Your task to perform on an android device: Go to eBay Image 0: 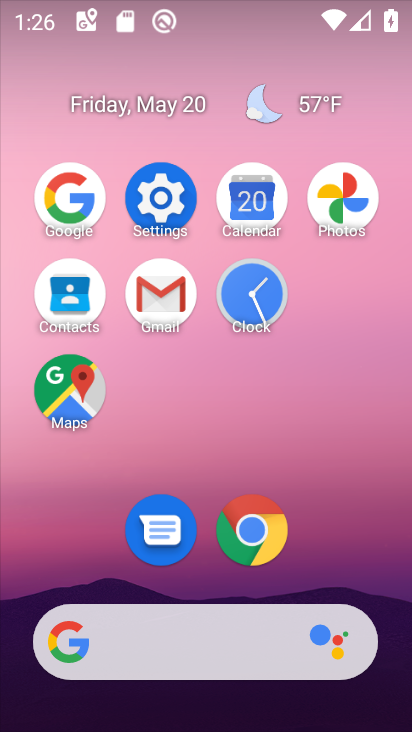
Step 0: click (250, 532)
Your task to perform on an android device: Go to eBay Image 1: 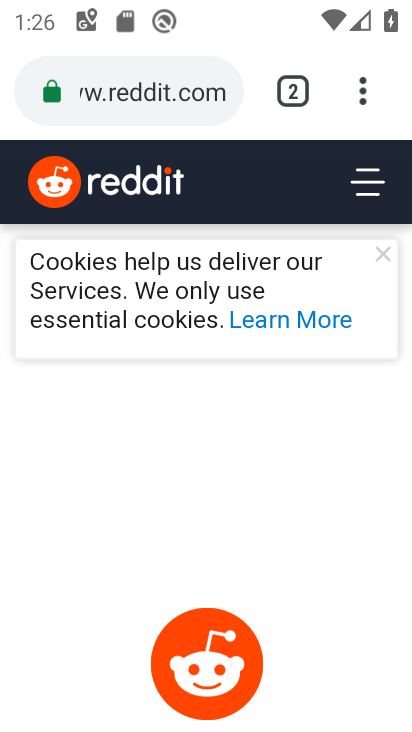
Step 1: click (286, 92)
Your task to perform on an android device: Go to eBay Image 2: 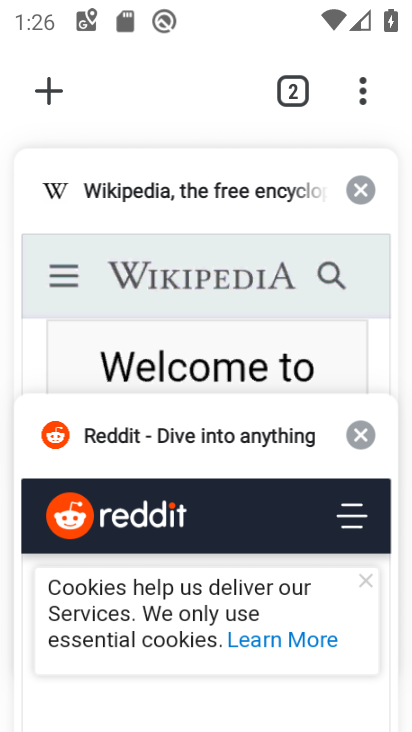
Step 2: click (45, 110)
Your task to perform on an android device: Go to eBay Image 3: 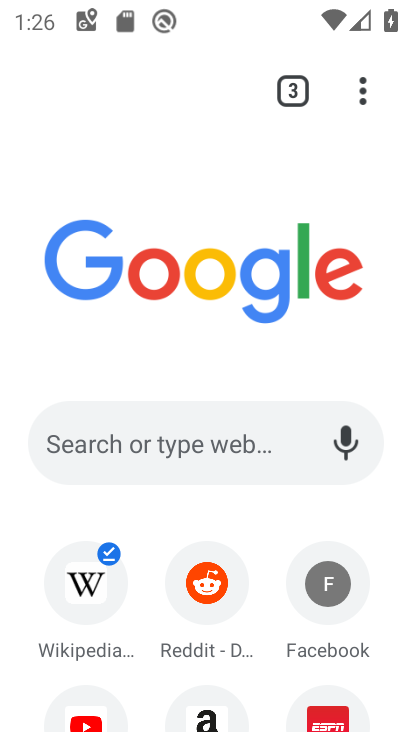
Step 3: click (154, 421)
Your task to perform on an android device: Go to eBay Image 4: 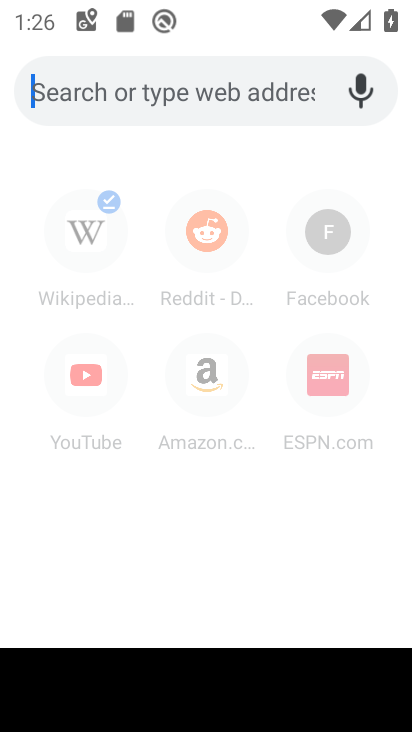
Step 4: type "ebay"
Your task to perform on an android device: Go to eBay Image 5: 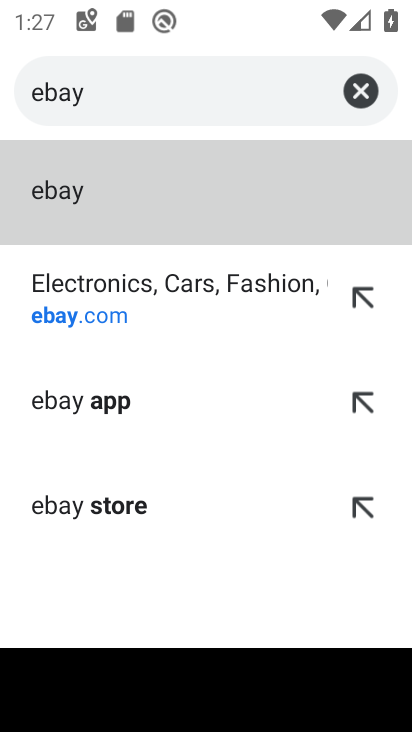
Step 5: click (88, 312)
Your task to perform on an android device: Go to eBay Image 6: 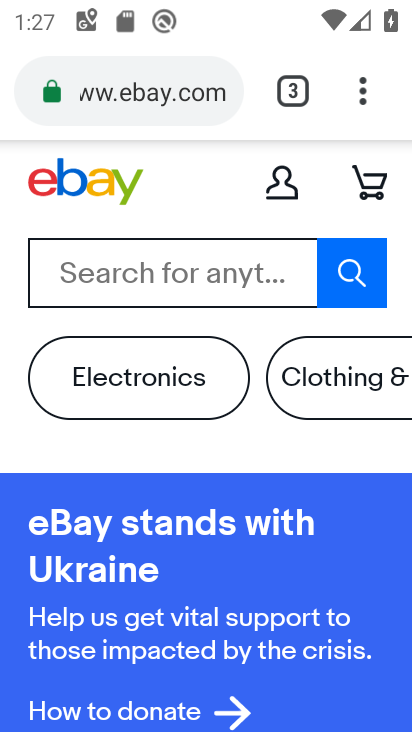
Step 6: task complete